Your task to perform on an android device: move a message to another label in the gmail app Image 0: 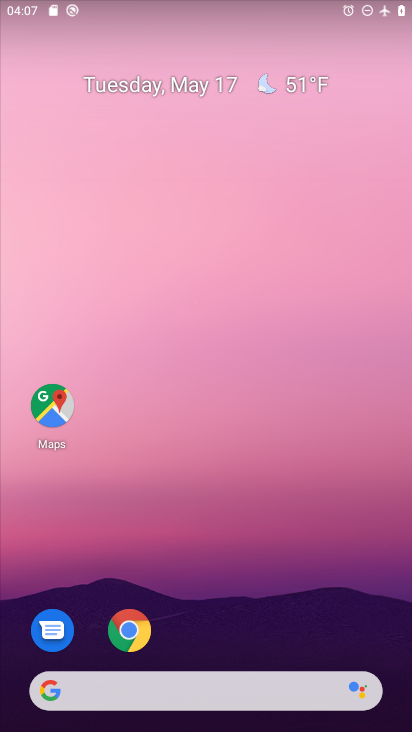
Step 0: drag from (197, 487) to (244, 82)
Your task to perform on an android device: move a message to another label in the gmail app Image 1: 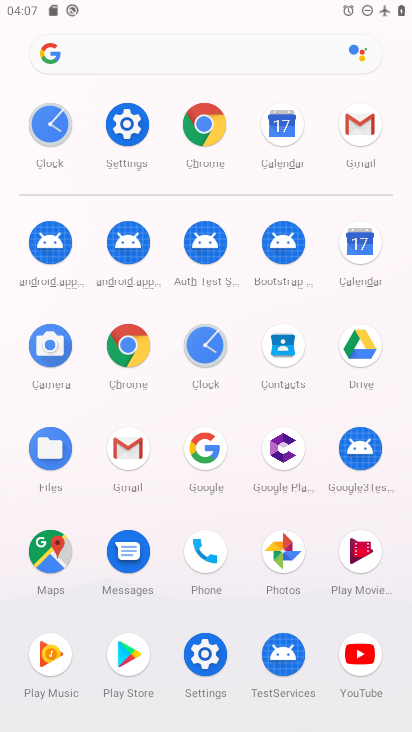
Step 1: click (353, 126)
Your task to perform on an android device: move a message to another label in the gmail app Image 2: 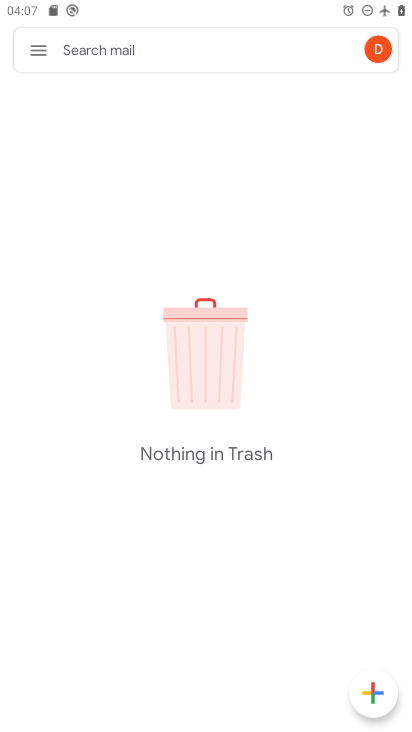
Step 2: click (34, 38)
Your task to perform on an android device: move a message to another label in the gmail app Image 3: 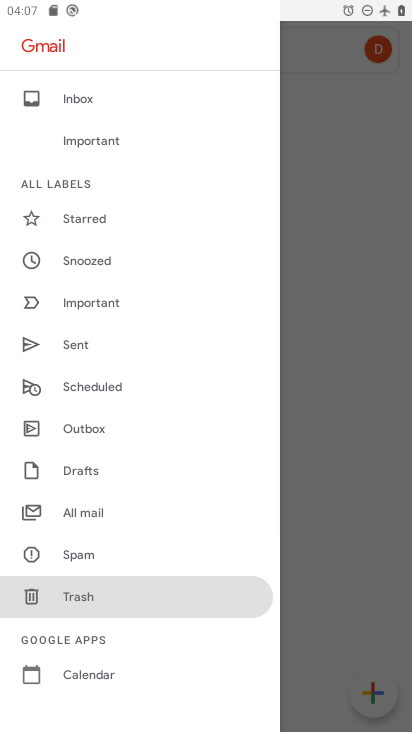
Step 3: click (83, 512)
Your task to perform on an android device: move a message to another label in the gmail app Image 4: 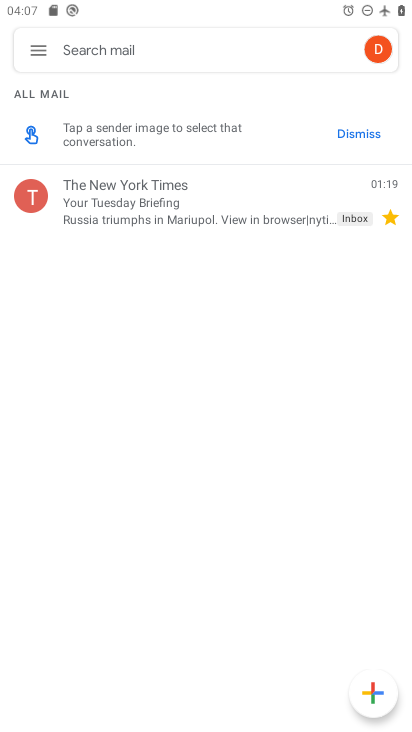
Step 4: click (160, 198)
Your task to perform on an android device: move a message to another label in the gmail app Image 5: 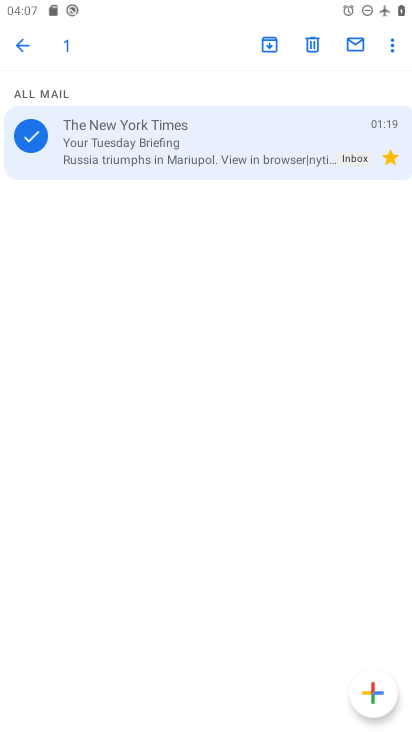
Step 5: click (385, 46)
Your task to perform on an android device: move a message to another label in the gmail app Image 6: 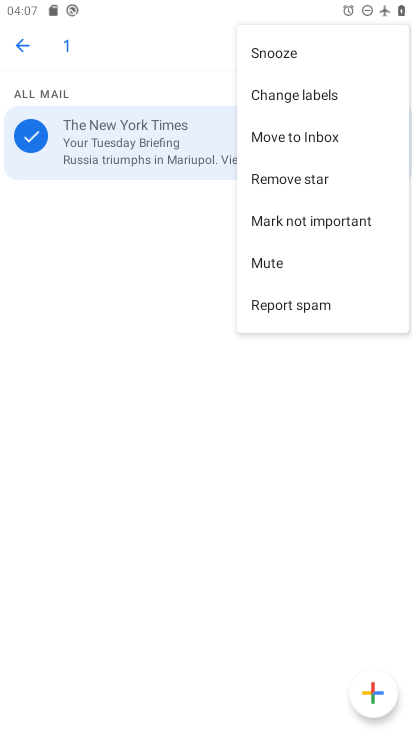
Step 6: click (286, 91)
Your task to perform on an android device: move a message to another label in the gmail app Image 7: 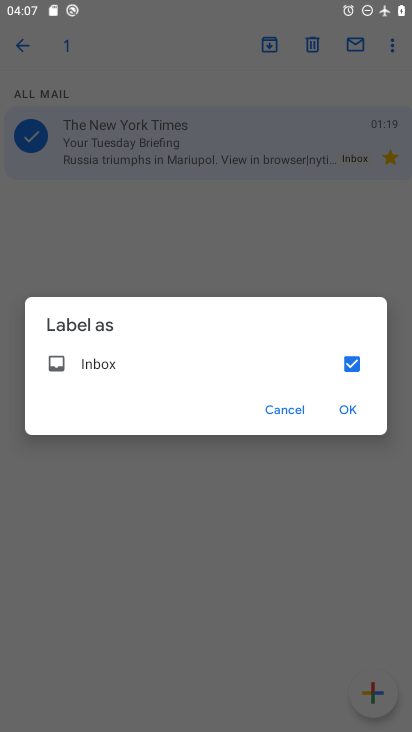
Step 7: click (345, 402)
Your task to perform on an android device: move a message to another label in the gmail app Image 8: 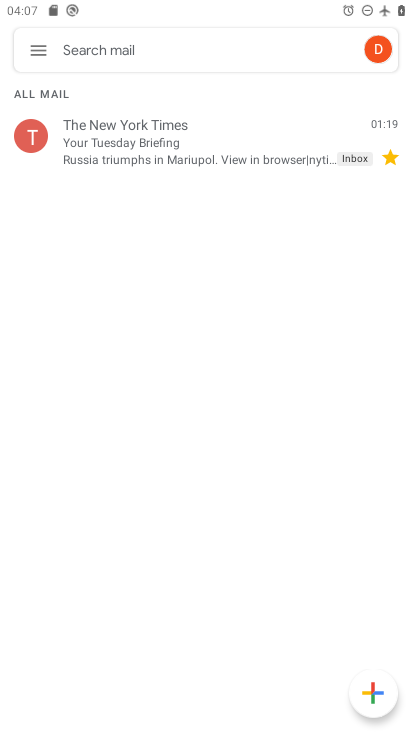
Step 8: task complete